Your task to perform on an android device: View the shopping cart on costco.com. Add "asus zenbook" to the cart on costco.com Image 0: 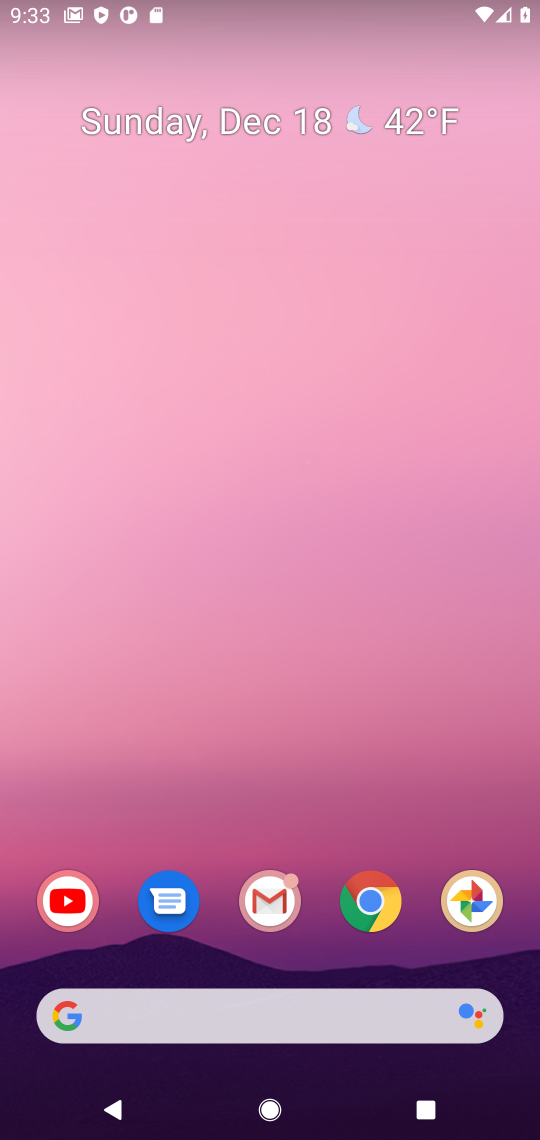
Step 0: click (382, 912)
Your task to perform on an android device: View the shopping cart on costco.com. Add "asus zenbook" to the cart on costco.com Image 1: 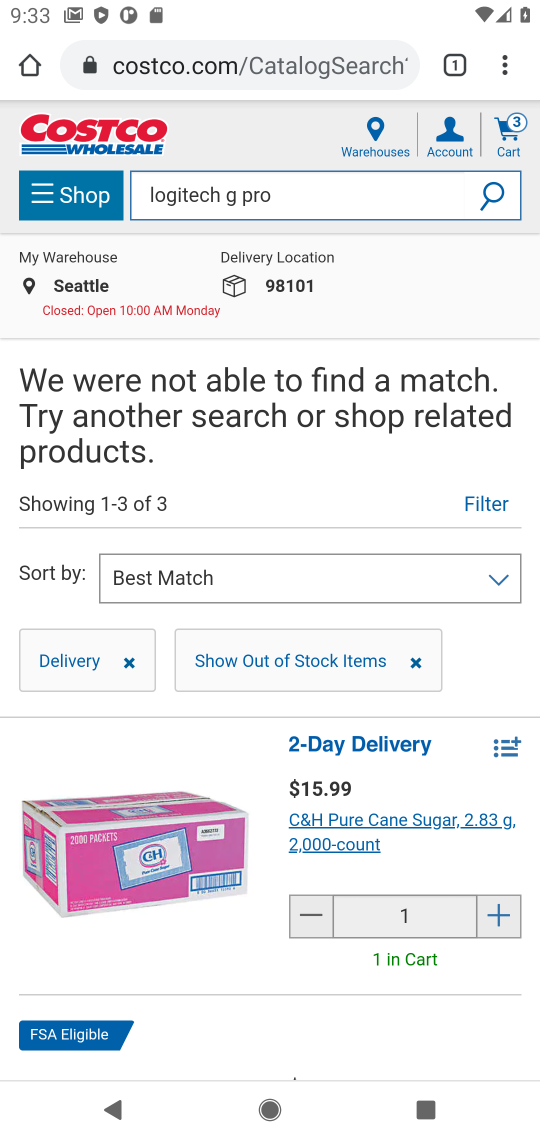
Step 1: click (294, 190)
Your task to perform on an android device: View the shopping cart on costco.com. Add "asus zenbook" to the cart on costco.com Image 2: 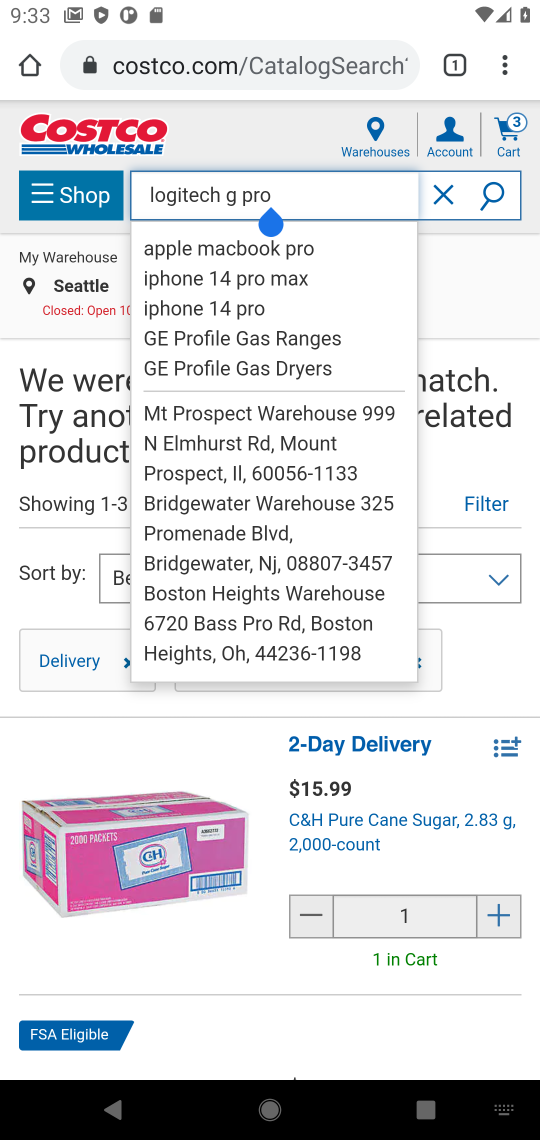
Step 2: click (433, 209)
Your task to perform on an android device: View the shopping cart on costco.com. Add "asus zenbook" to the cart on costco.com Image 3: 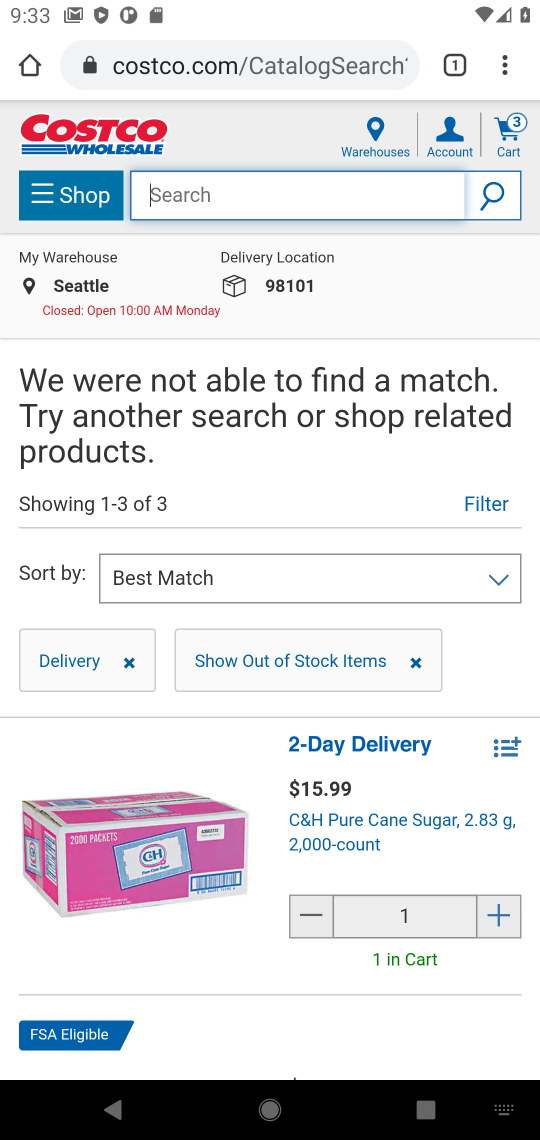
Step 3: type "asus zenphon"
Your task to perform on an android device: View the shopping cart on costco.com. Add "asus zenbook" to the cart on costco.com Image 4: 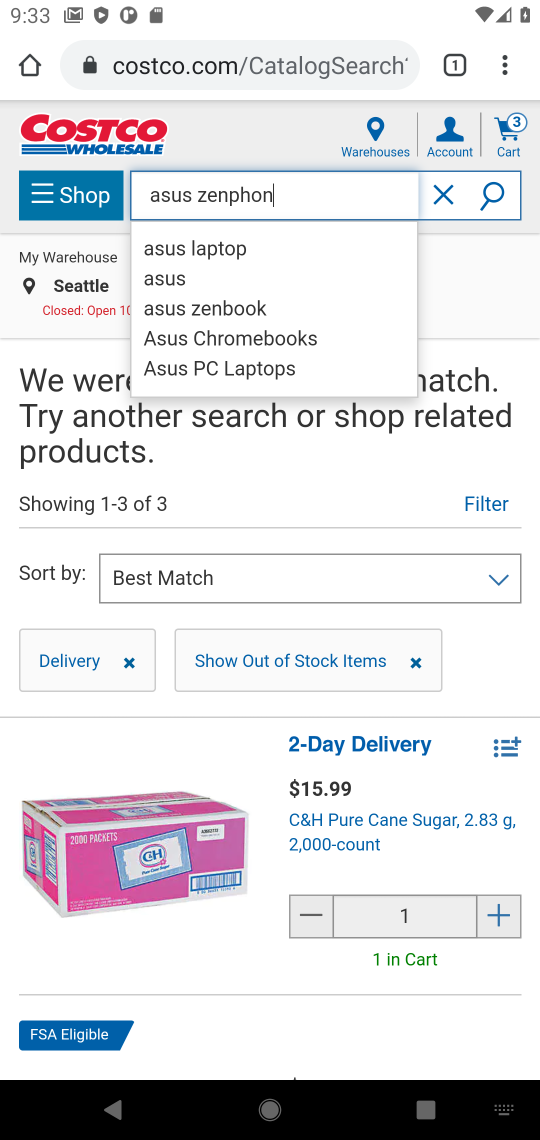
Step 4: click (191, 253)
Your task to perform on an android device: View the shopping cart on costco.com. Add "asus zenbook" to the cart on costco.com Image 5: 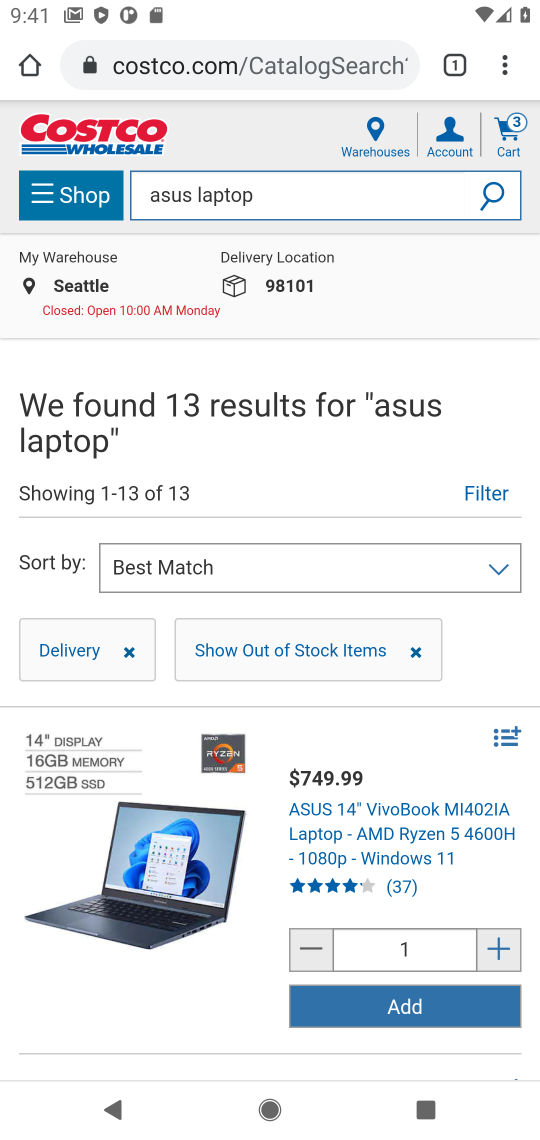
Step 5: click (417, 1021)
Your task to perform on an android device: View the shopping cart on costco.com. Add "asus zenbook" to the cart on costco.com Image 6: 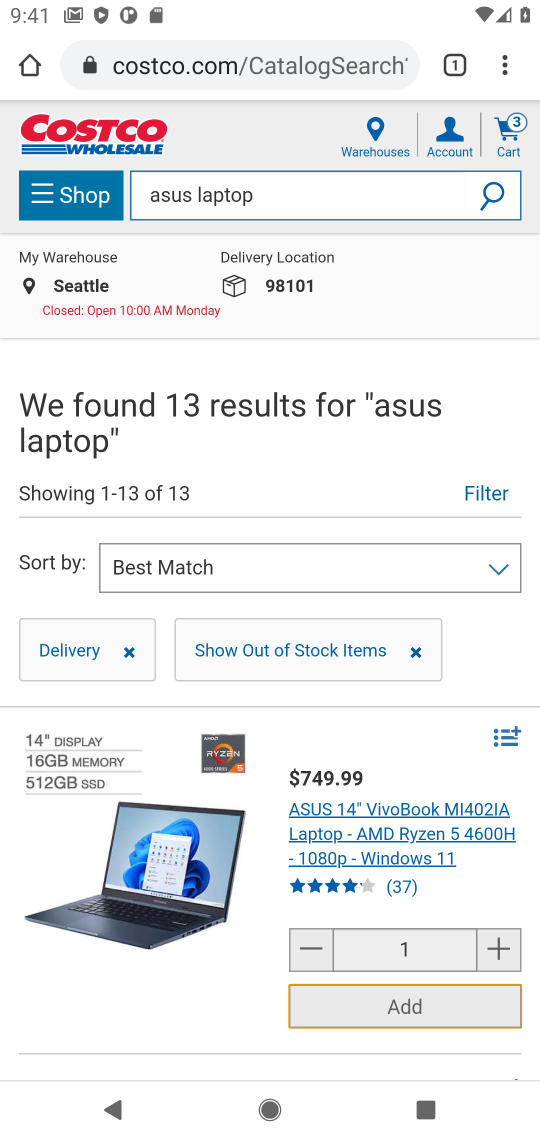
Step 6: task complete